Your task to perform on an android device: Open the web browser Image 0: 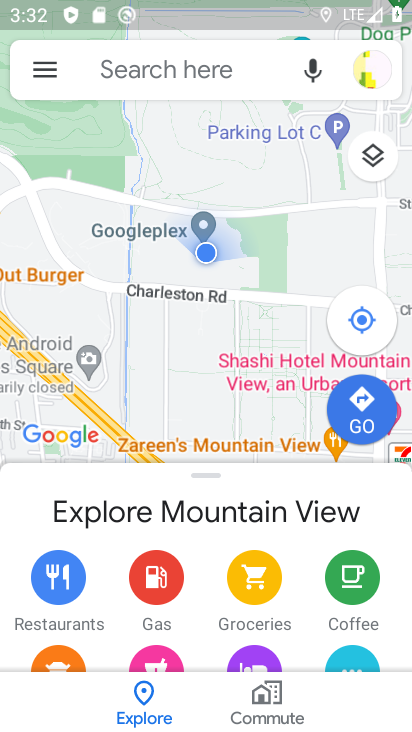
Step 0: press home button
Your task to perform on an android device: Open the web browser Image 1: 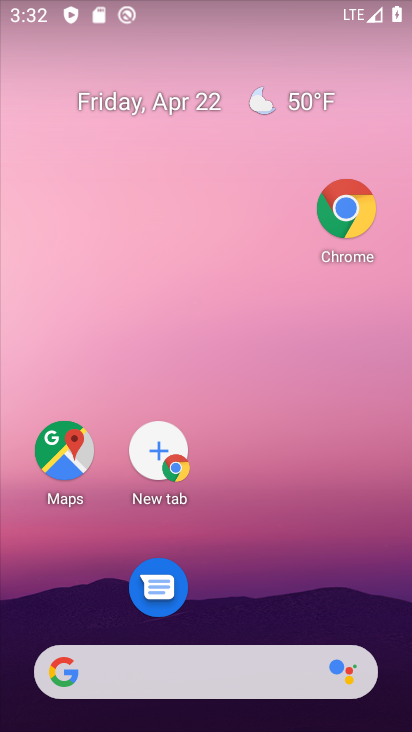
Step 1: click (215, 671)
Your task to perform on an android device: Open the web browser Image 2: 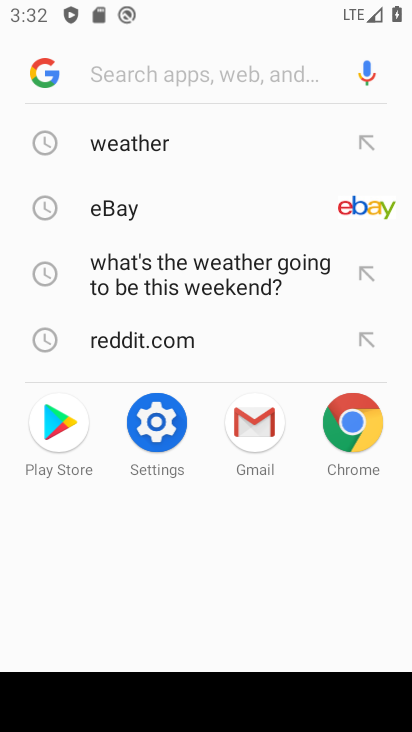
Step 2: task complete